Your task to perform on an android device: Open Google Chrome Image 0: 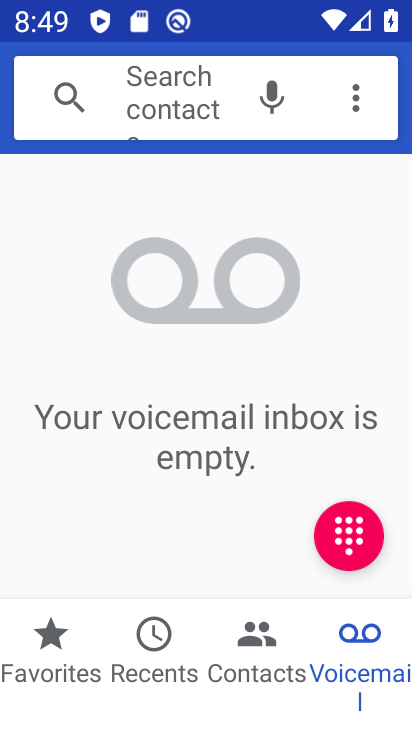
Step 0: press home button
Your task to perform on an android device: Open Google Chrome Image 1: 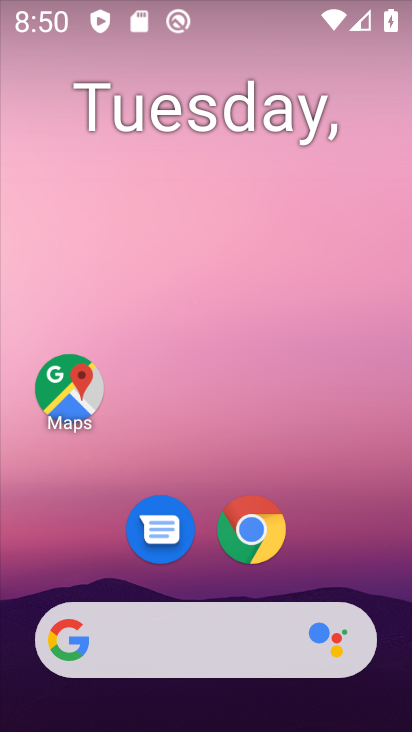
Step 1: click (259, 527)
Your task to perform on an android device: Open Google Chrome Image 2: 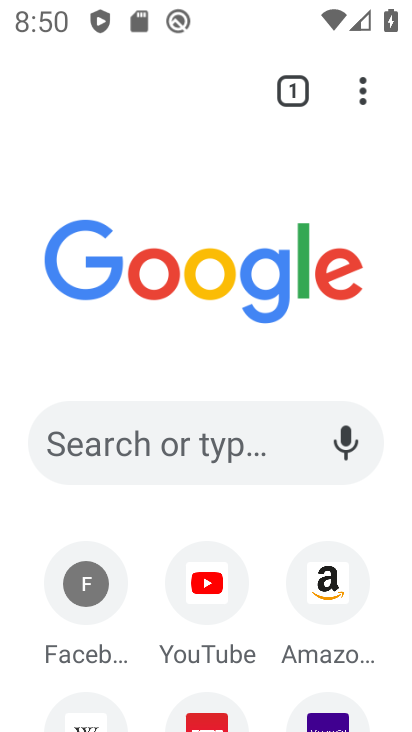
Step 2: task complete